Your task to perform on an android device: Set the phone to "Do not disturb". Image 0: 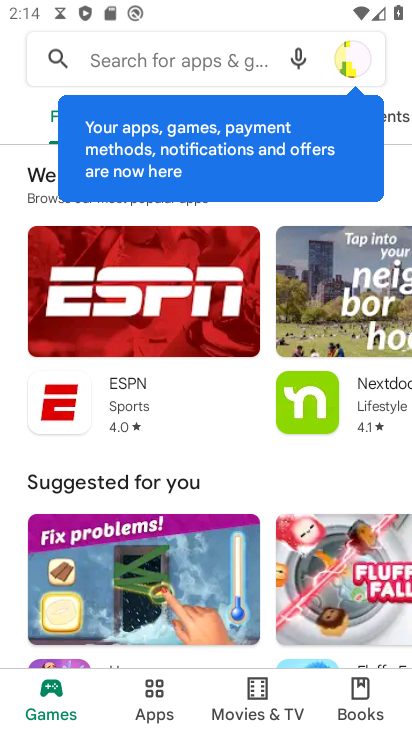
Step 0: press home button
Your task to perform on an android device: Set the phone to "Do not disturb". Image 1: 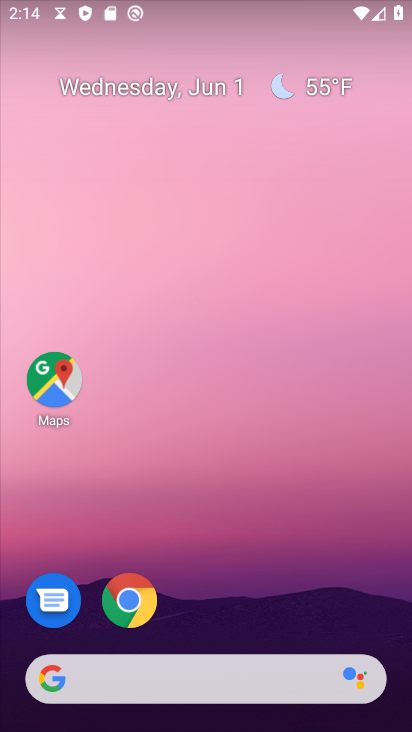
Step 1: drag from (214, 626) to (157, 96)
Your task to perform on an android device: Set the phone to "Do not disturb". Image 2: 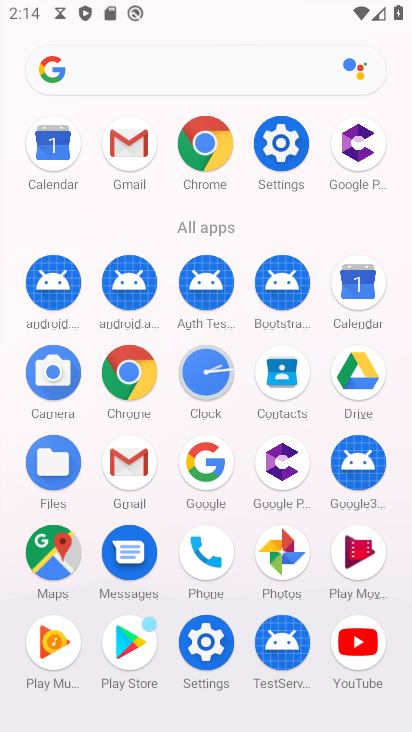
Step 2: click (291, 144)
Your task to perform on an android device: Set the phone to "Do not disturb". Image 3: 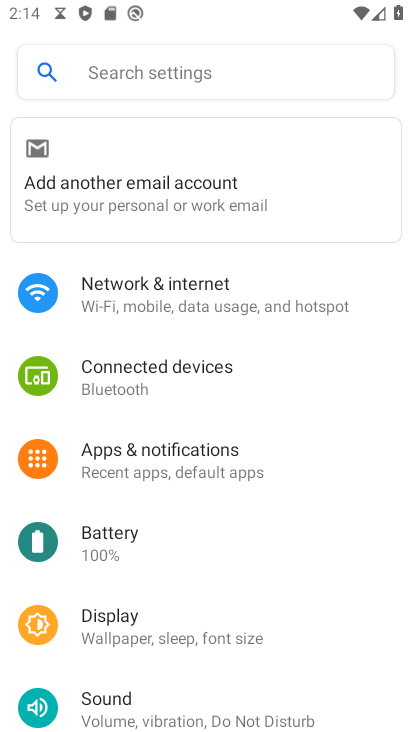
Step 3: drag from (254, 618) to (234, 372)
Your task to perform on an android device: Set the phone to "Do not disturb". Image 4: 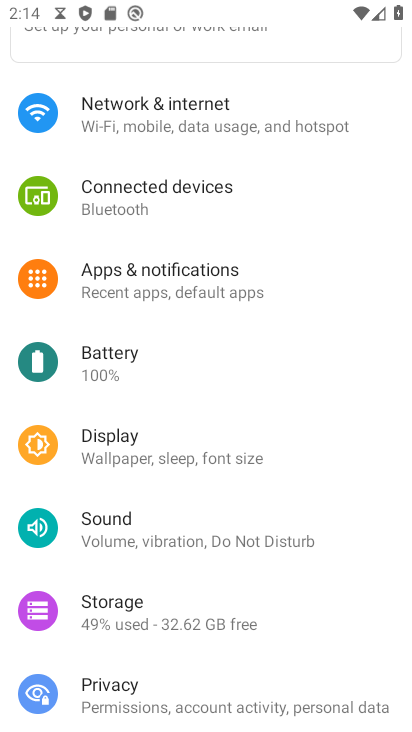
Step 4: click (206, 547)
Your task to perform on an android device: Set the phone to "Do not disturb". Image 5: 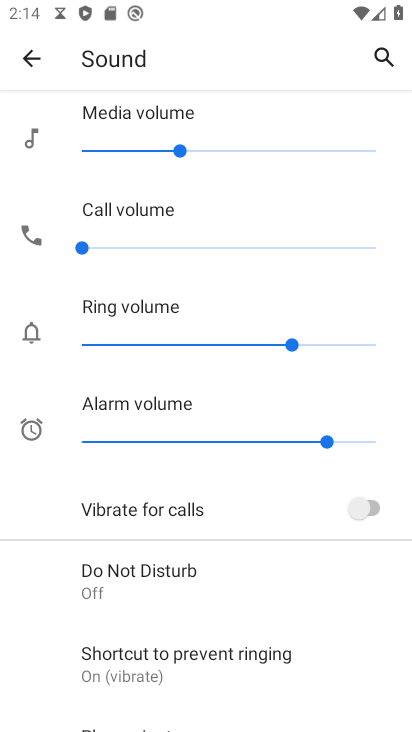
Step 5: click (245, 591)
Your task to perform on an android device: Set the phone to "Do not disturb". Image 6: 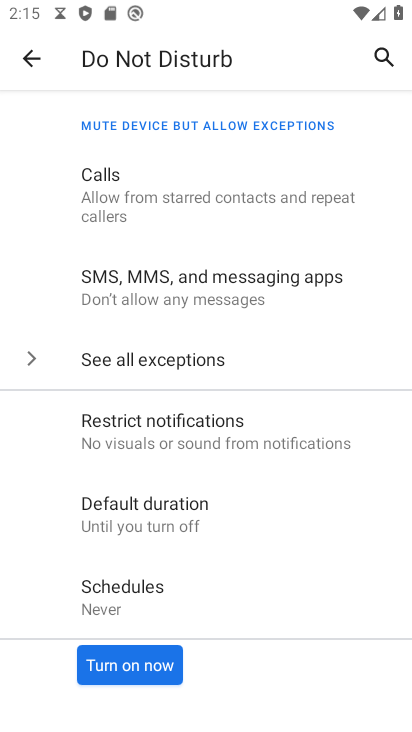
Step 6: click (139, 654)
Your task to perform on an android device: Set the phone to "Do not disturb". Image 7: 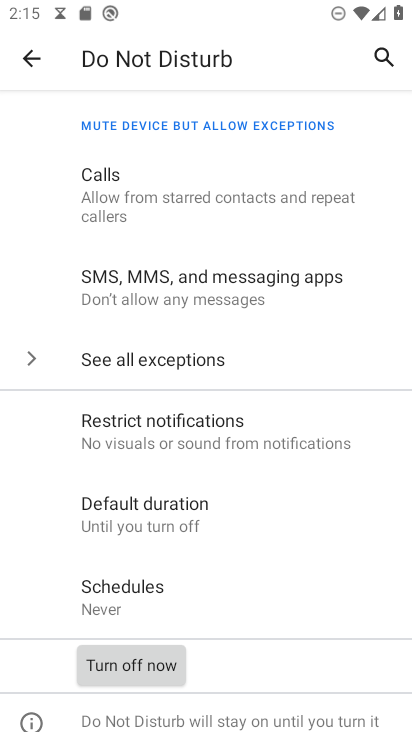
Step 7: task complete